Your task to perform on an android device: Go to privacy settings Image 0: 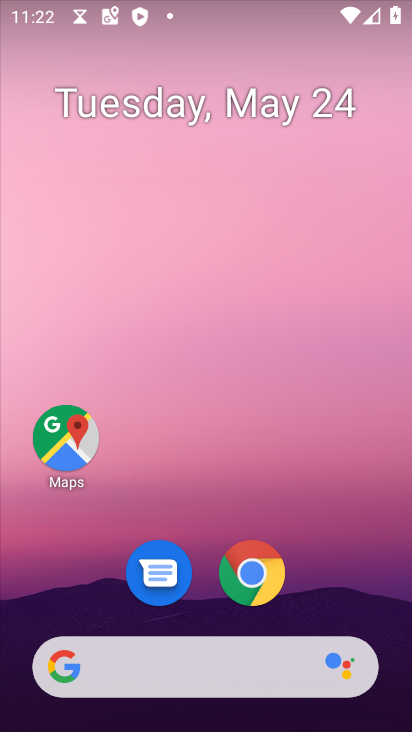
Step 0: click (239, 577)
Your task to perform on an android device: Go to privacy settings Image 1: 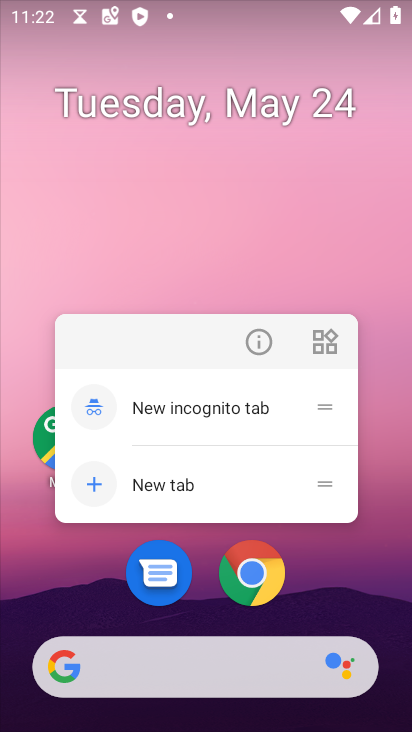
Step 1: click (249, 567)
Your task to perform on an android device: Go to privacy settings Image 2: 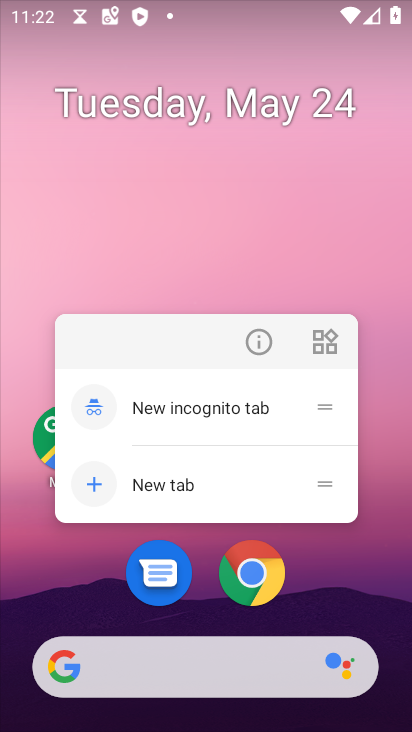
Step 2: click (252, 579)
Your task to perform on an android device: Go to privacy settings Image 3: 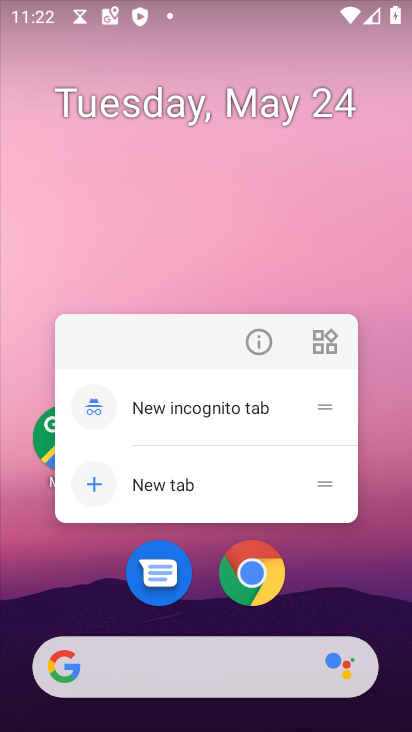
Step 3: click (257, 583)
Your task to perform on an android device: Go to privacy settings Image 4: 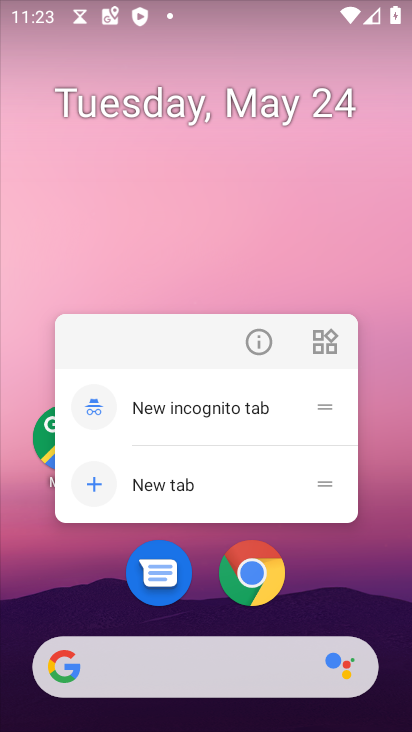
Step 4: click (257, 583)
Your task to perform on an android device: Go to privacy settings Image 5: 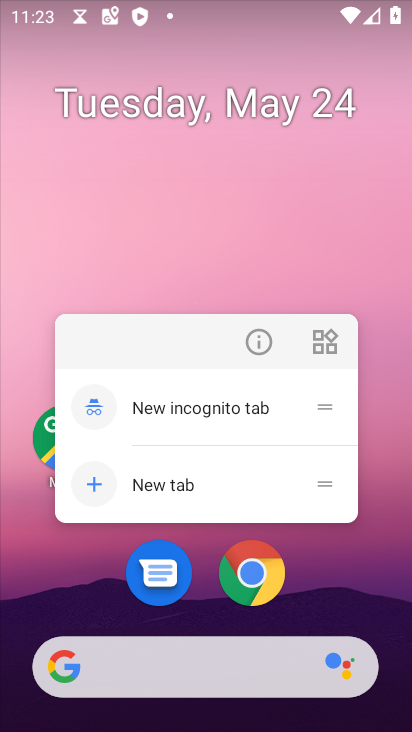
Step 5: click (257, 583)
Your task to perform on an android device: Go to privacy settings Image 6: 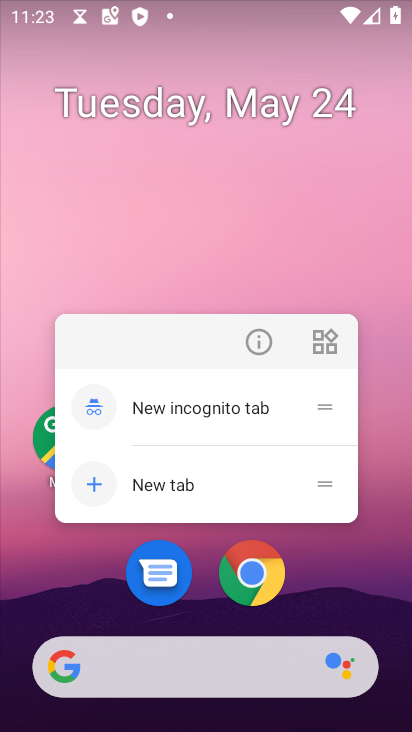
Step 6: click (257, 580)
Your task to perform on an android device: Go to privacy settings Image 7: 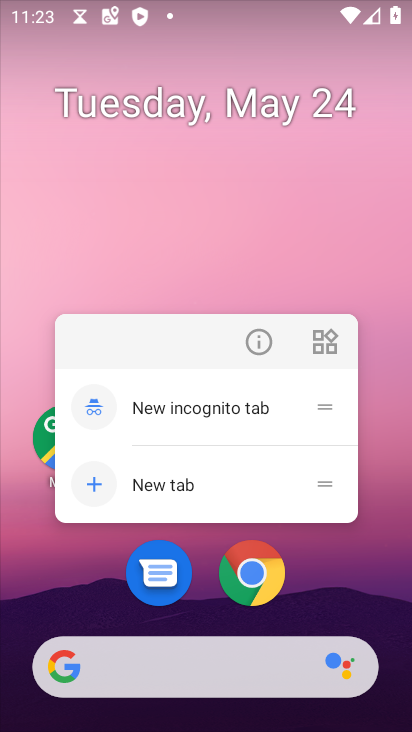
Step 7: click (257, 576)
Your task to perform on an android device: Go to privacy settings Image 8: 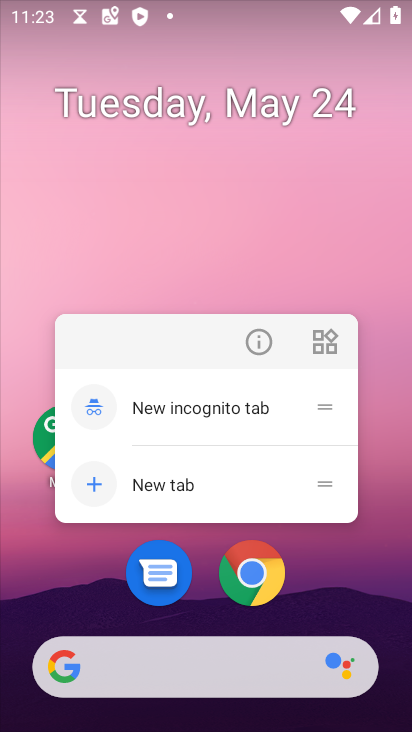
Step 8: click (257, 576)
Your task to perform on an android device: Go to privacy settings Image 9: 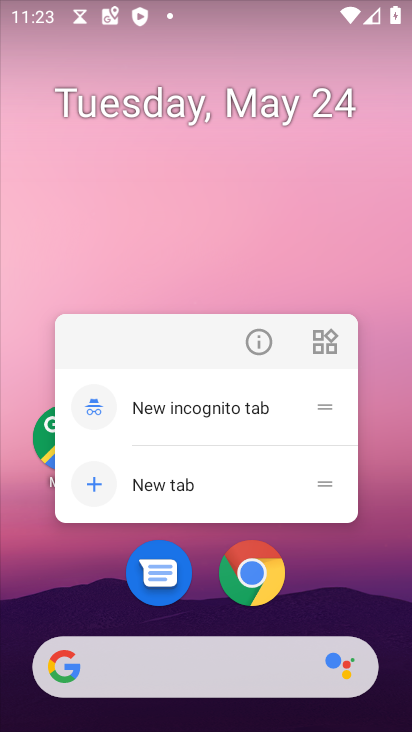
Step 9: click (258, 575)
Your task to perform on an android device: Go to privacy settings Image 10: 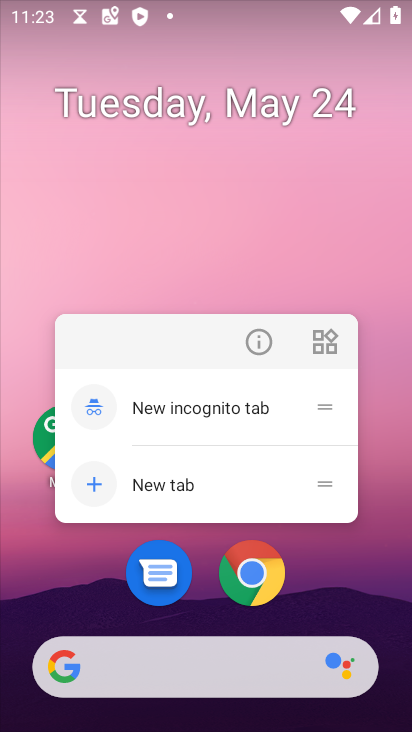
Step 10: click (242, 574)
Your task to perform on an android device: Go to privacy settings Image 11: 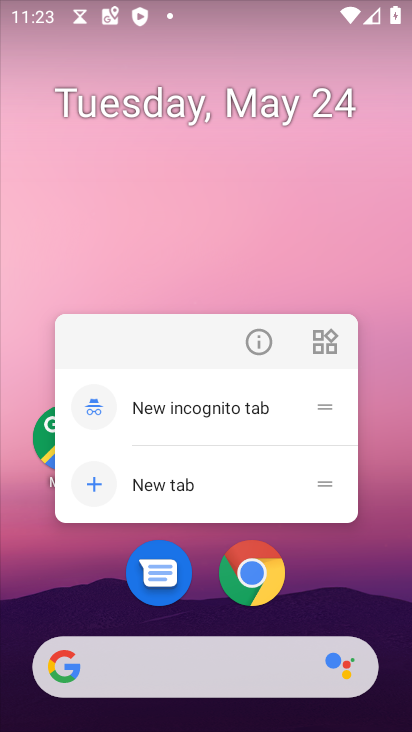
Step 11: click (260, 578)
Your task to perform on an android device: Go to privacy settings Image 12: 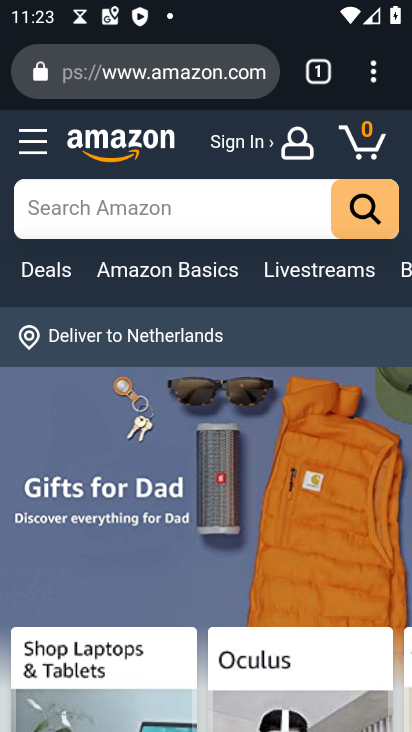
Step 12: drag from (375, 81) to (237, 569)
Your task to perform on an android device: Go to privacy settings Image 13: 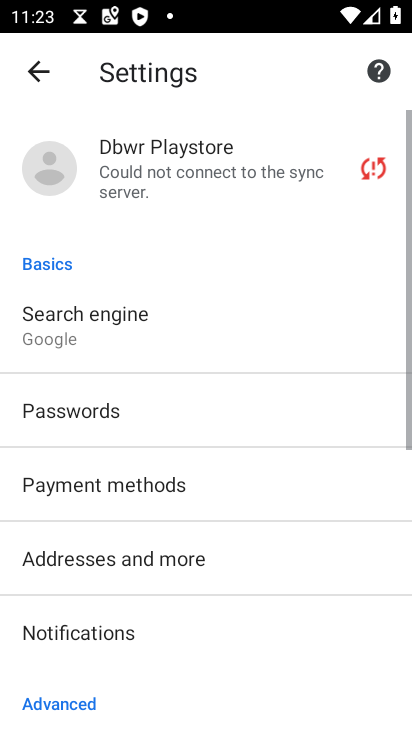
Step 13: drag from (179, 666) to (299, 262)
Your task to perform on an android device: Go to privacy settings Image 14: 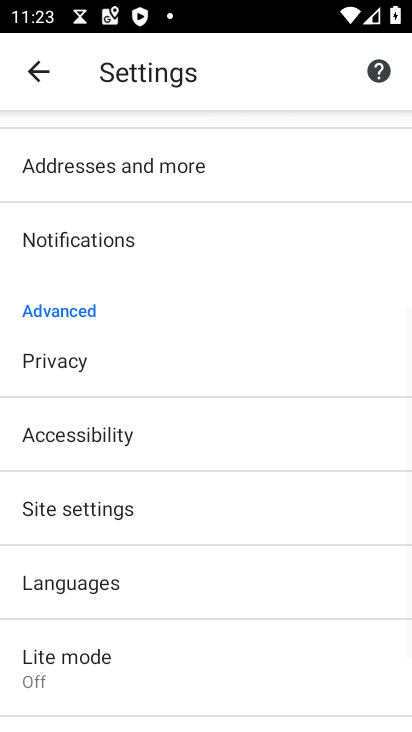
Step 14: click (135, 361)
Your task to perform on an android device: Go to privacy settings Image 15: 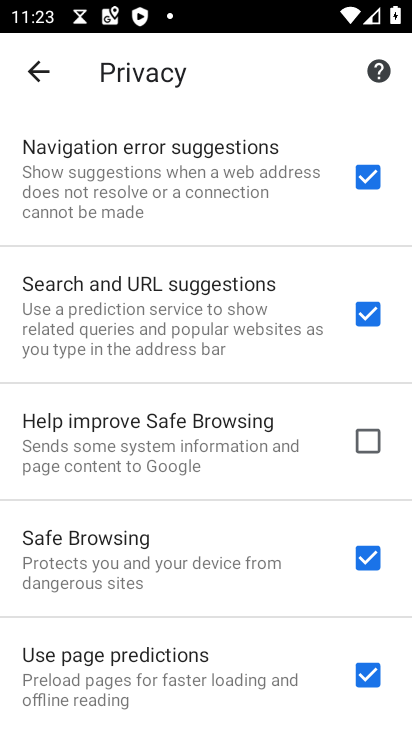
Step 15: task complete